Your task to perform on an android device: Open maps Image 0: 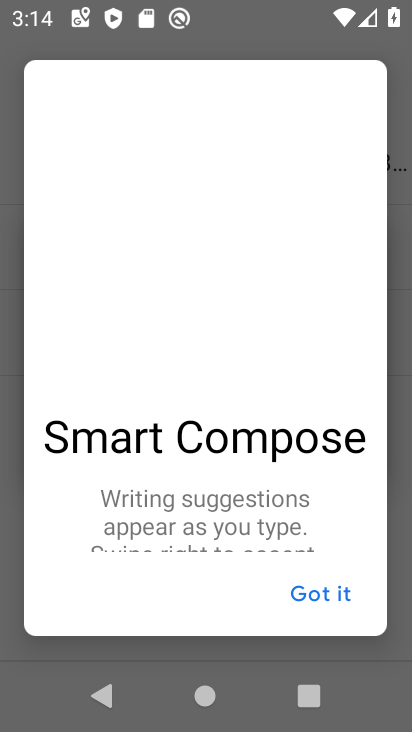
Step 0: press back button
Your task to perform on an android device: Open maps Image 1: 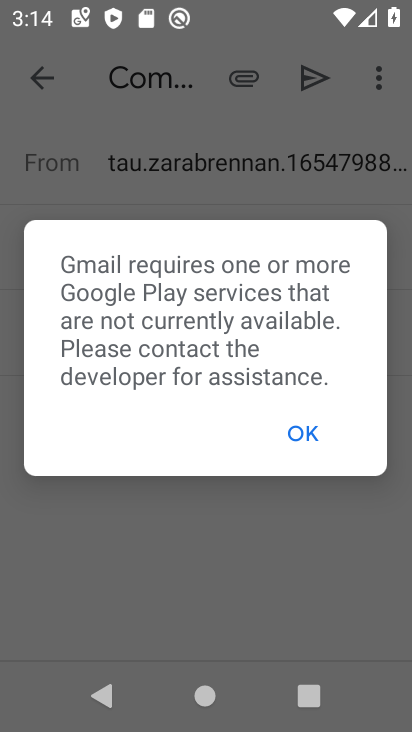
Step 1: press back button
Your task to perform on an android device: Open maps Image 2: 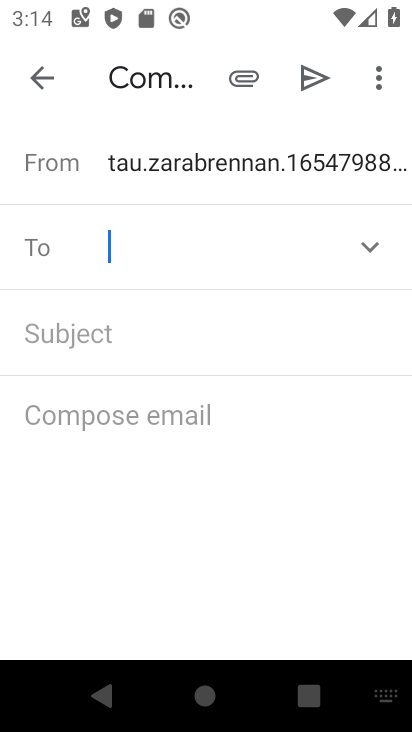
Step 2: press home button
Your task to perform on an android device: Open maps Image 3: 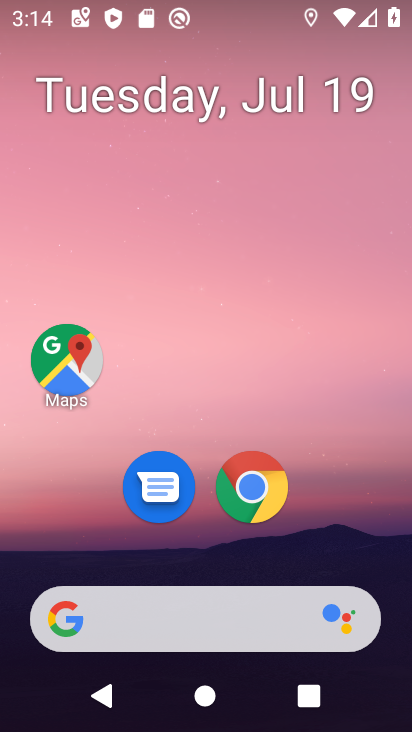
Step 3: click (81, 355)
Your task to perform on an android device: Open maps Image 4: 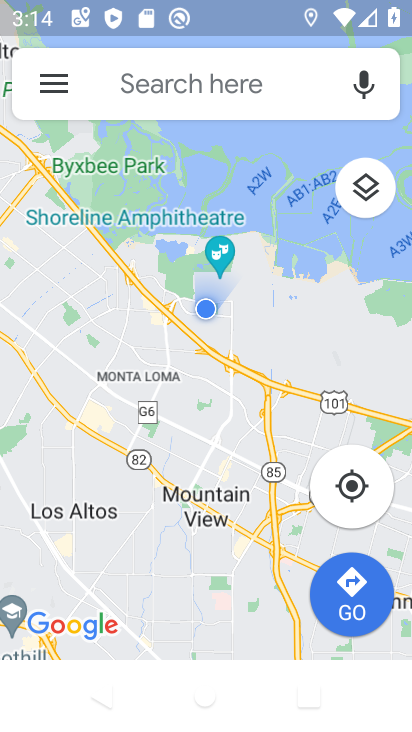
Step 4: task complete